Your task to perform on an android device: Open battery settings Image 0: 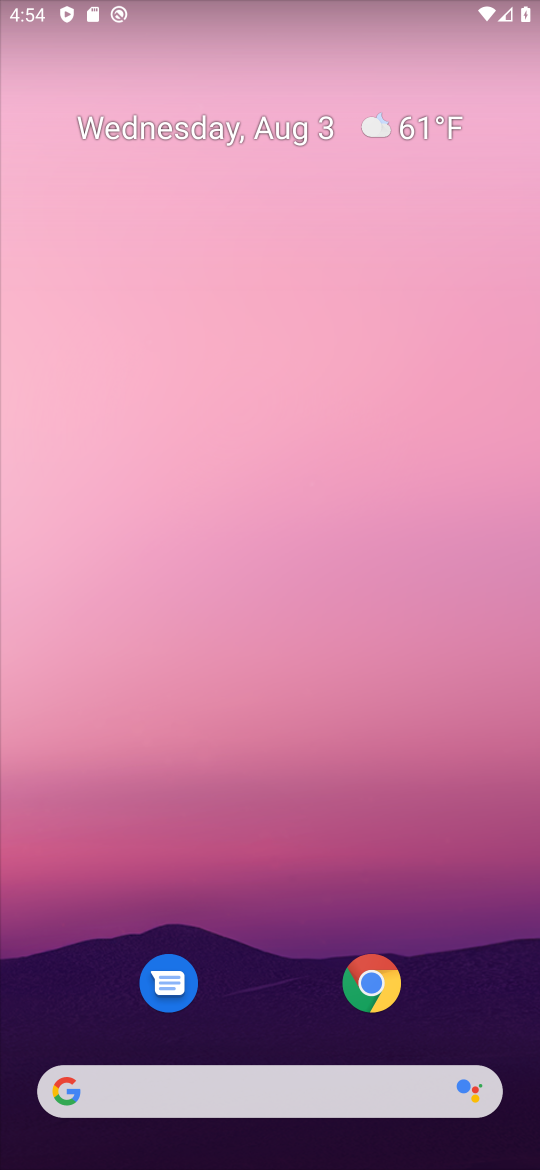
Step 0: drag from (307, 893) to (444, 96)
Your task to perform on an android device: Open battery settings Image 1: 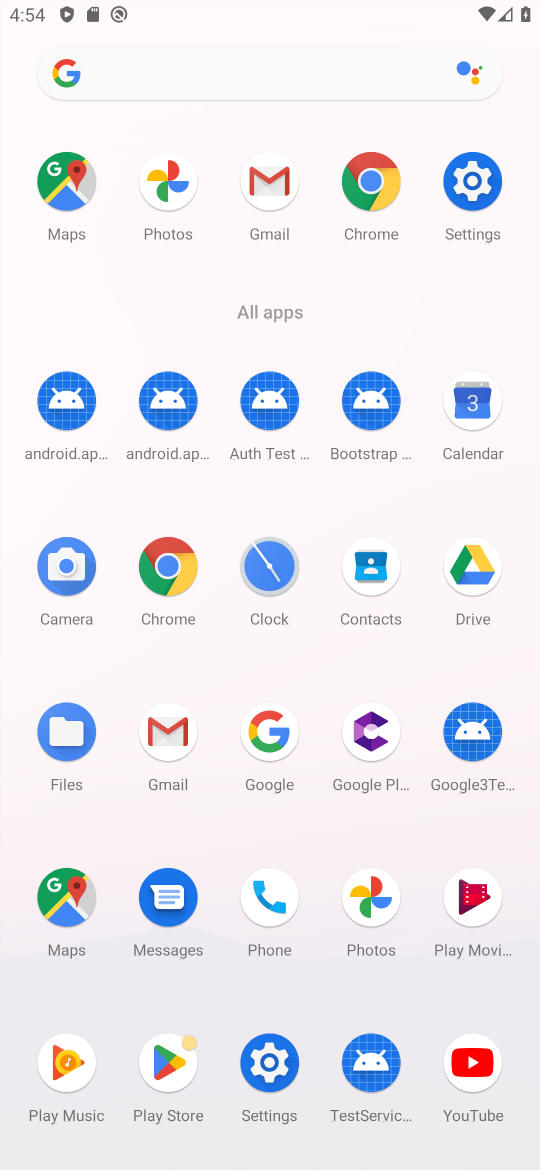
Step 1: click (473, 184)
Your task to perform on an android device: Open battery settings Image 2: 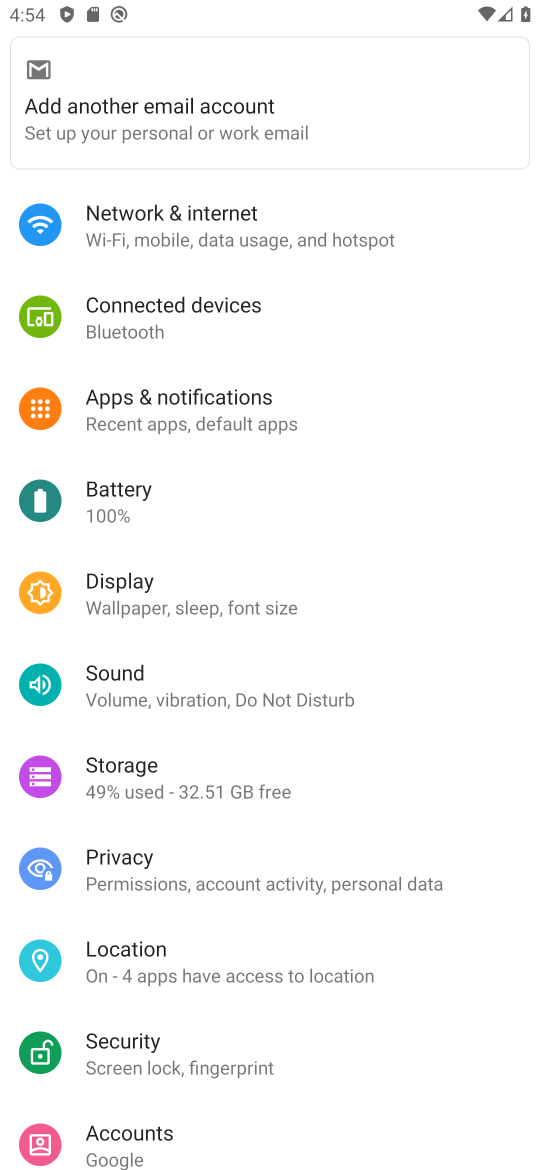
Step 2: click (106, 502)
Your task to perform on an android device: Open battery settings Image 3: 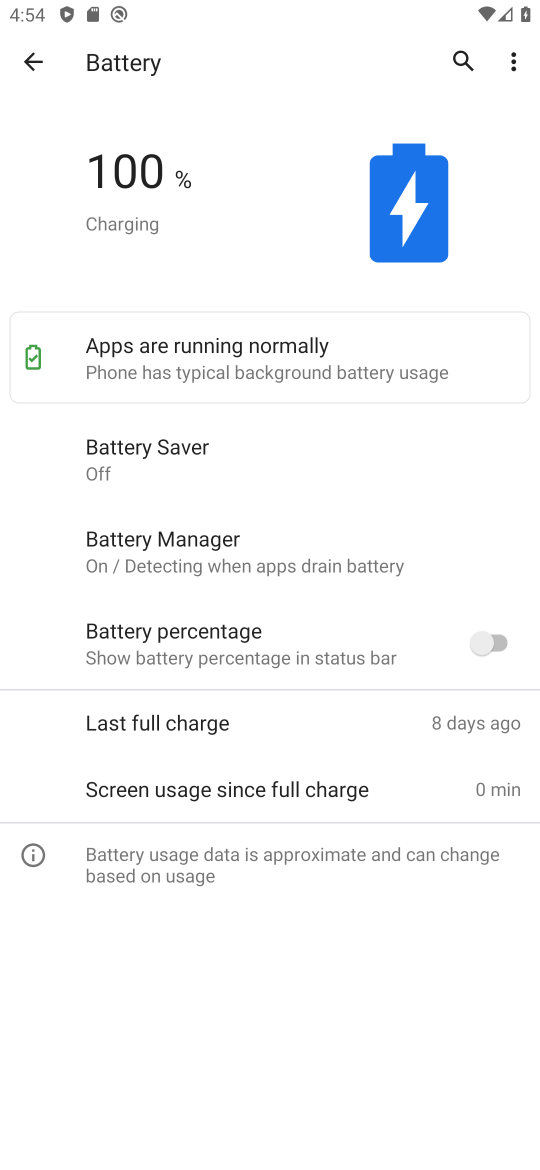
Step 3: task complete